Your task to perform on an android device: Open the Play Movies app and select the watchlist tab. Image 0: 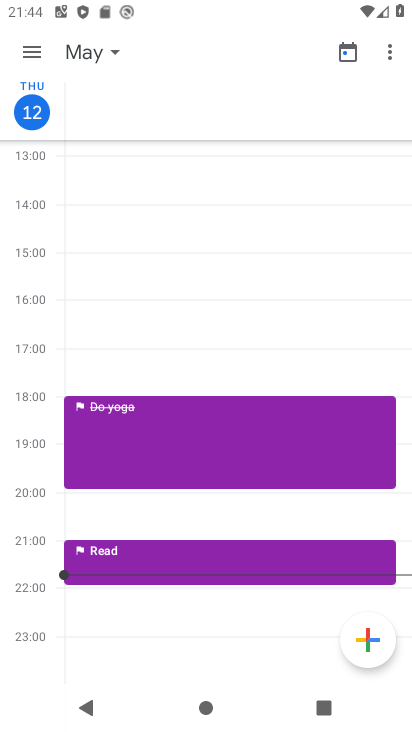
Step 0: press home button
Your task to perform on an android device: Open the Play Movies app and select the watchlist tab. Image 1: 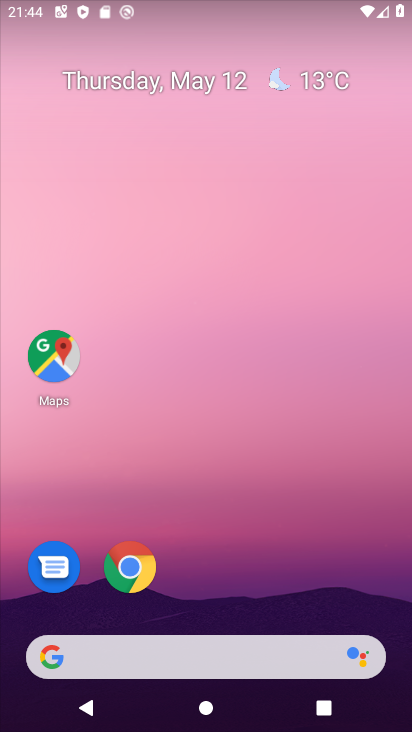
Step 1: drag from (216, 615) to (202, 1)
Your task to perform on an android device: Open the Play Movies app and select the watchlist tab. Image 2: 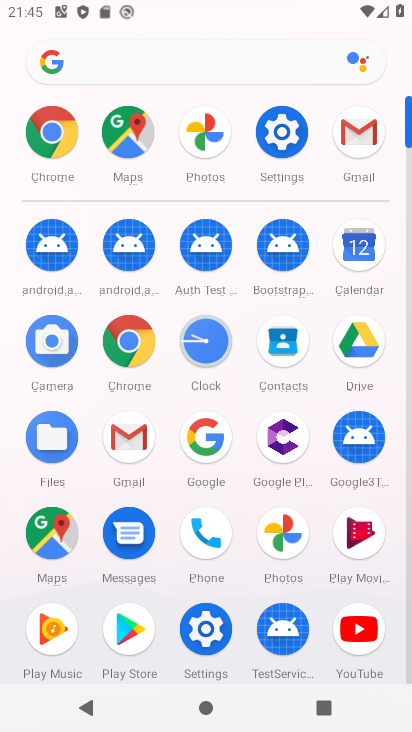
Step 2: click (357, 532)
Your task to perform on an android device: Open the Play Movies app and select the watchlist tab. Image 3: 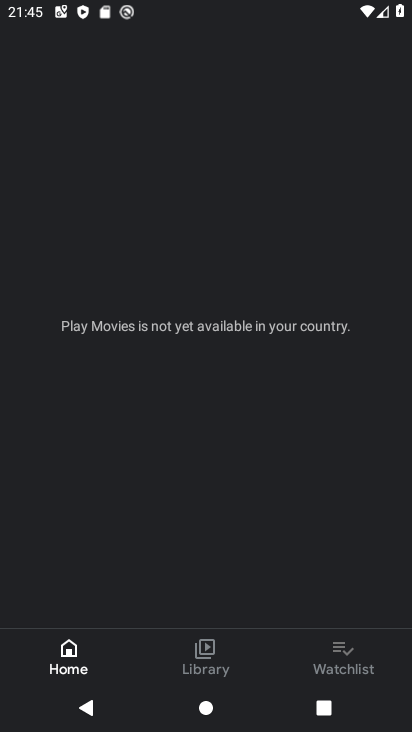
Step 3: click (334, 655)
Your task to perform on an android device: Open the Play Movies app and select the watchlist tab. Image 4: 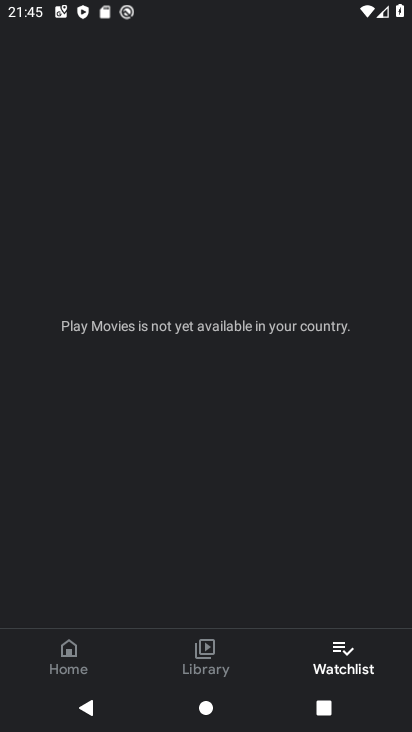
Step 4: task complete